Your task to perform on an android device: open the mobile data screen to see how much data has been used Image 0: 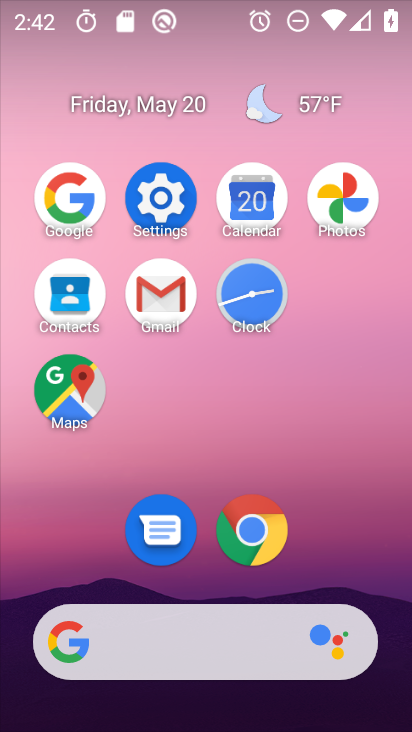
Step 0: click (151, 200)
Your task to perform on an android device: open the mobile data screen to see how much data has been used Image 1: 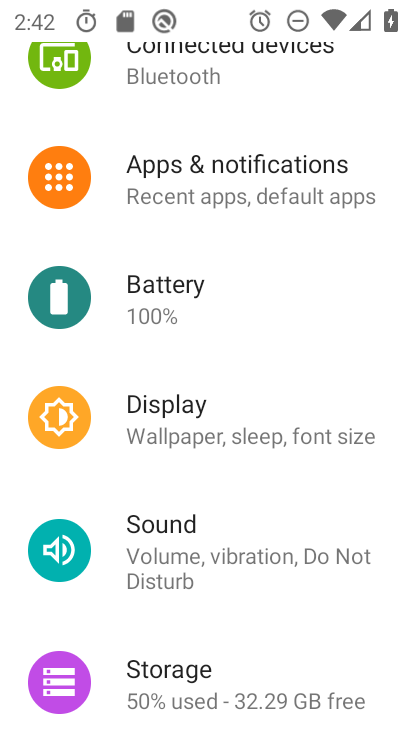
Step 1: drag from (282, 140) to (226, 515)
Your task to perform on an android device: open the mobile data screen to see how much data has been used Image 2: 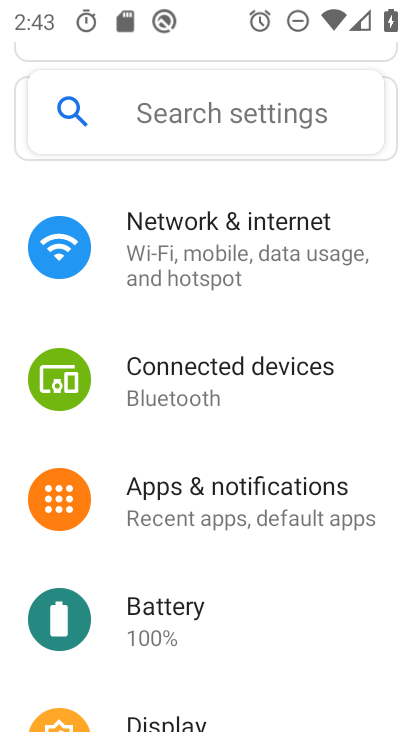
Step 2: click (267, 263)
Your task to perform on an android device: open the mobile data screen to see how much data has been used Image 3: 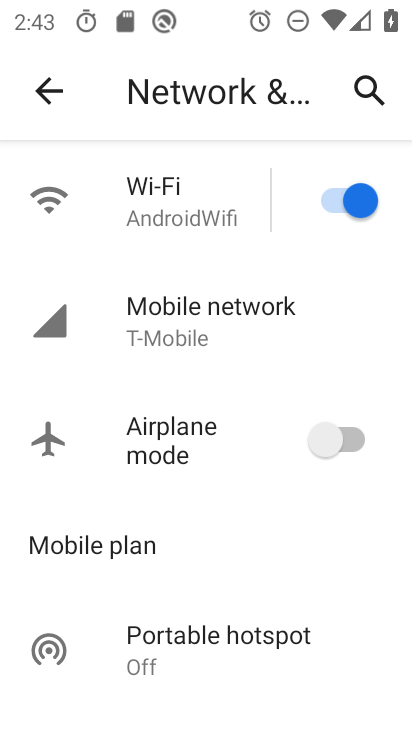
Step 3: click (219, 318)
Your task to perform on an android device: open the mobile data screen to see how much data has been used Image 4: 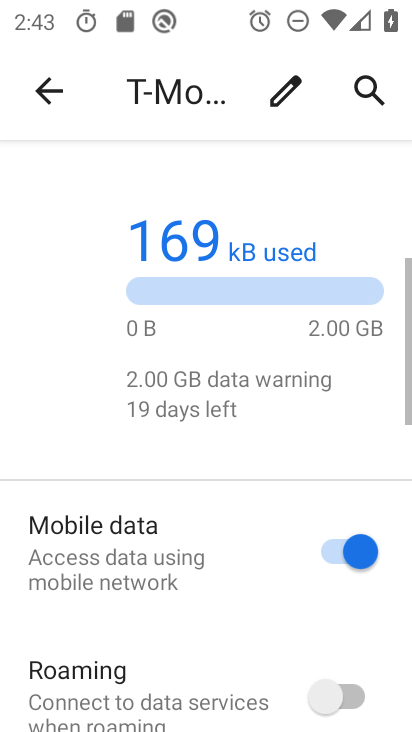
Step 4: drag from (220, 401) to (240, 130)
Your task to perform on an android device: open the mobile data screen to see how much data has been used Image 5: 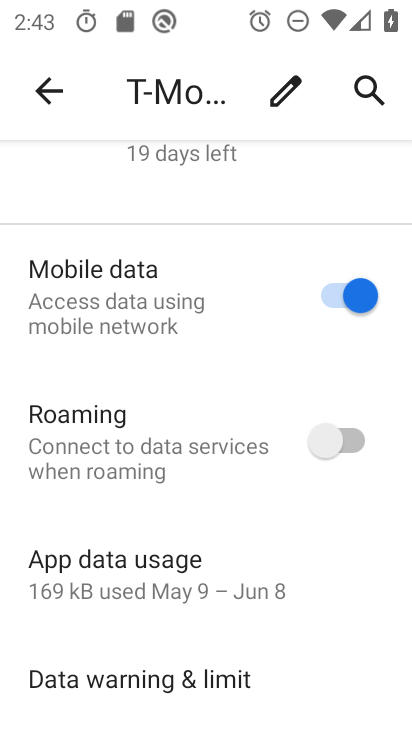
Step 5: drag from (215, 565) to (234, 204)
Your task to perform on an android device: open the mobile data screen to see how much data has been used Image 6: 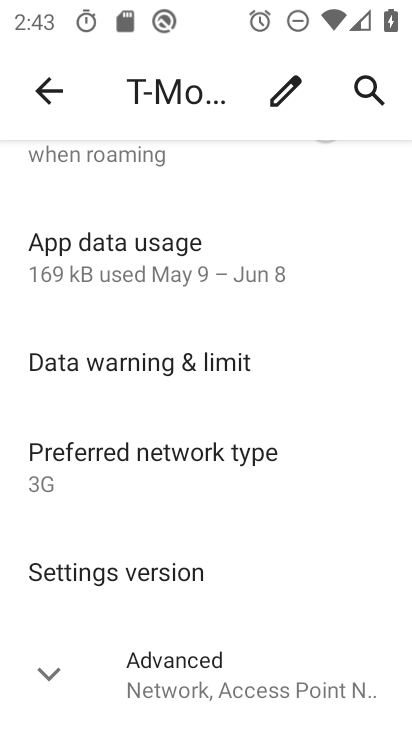
Step 6: click (206, 263)
Your task to perform on an android device: open the mobile data screen to see how much data has been used Image 7: 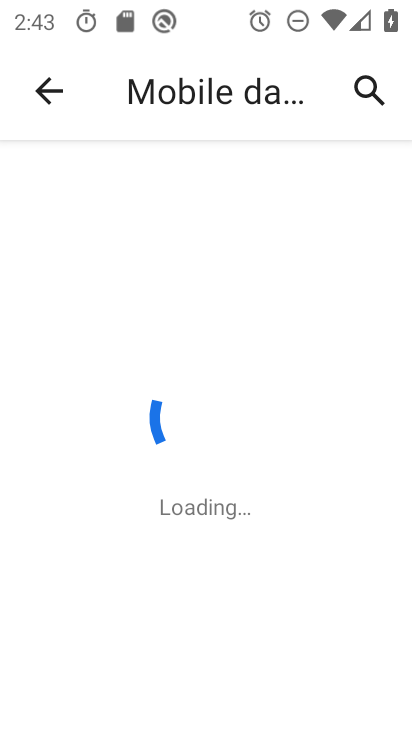
Step 7: task complete